Your task to perform on an android device: Open calendar and show me the third week of next month Image 0: 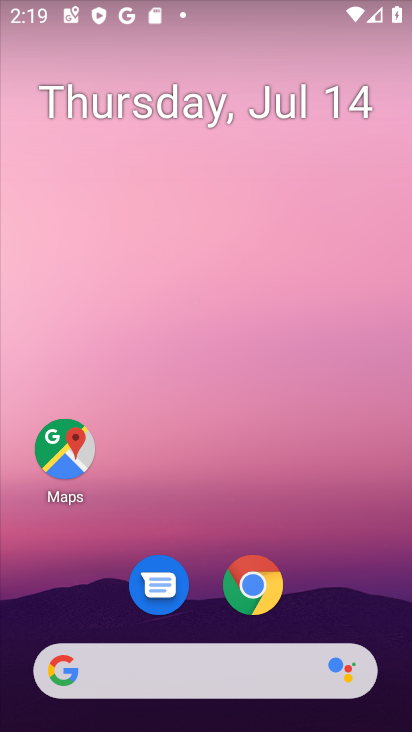
Step 0: drag from (340, 564) to (314, 84)
Your task to perform on an android device: Open calendar and show me the third week of next month Image 1: 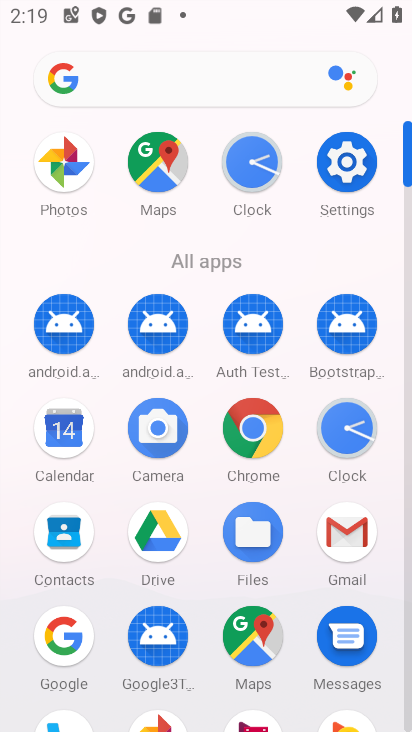
Step 1: click (78, 439)
Your task to perform on an android device: Open calendar and show me the third week of next month Image 2: 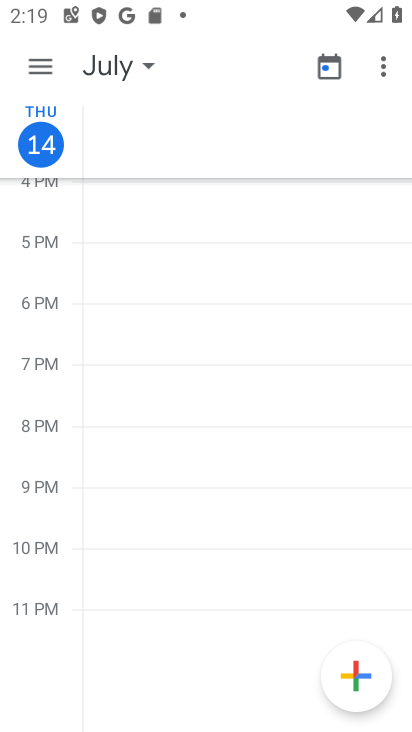
Step 2: click (40, 66)
Your task to perform on an android device: Open calendar and show me the third week of next month Image 3: 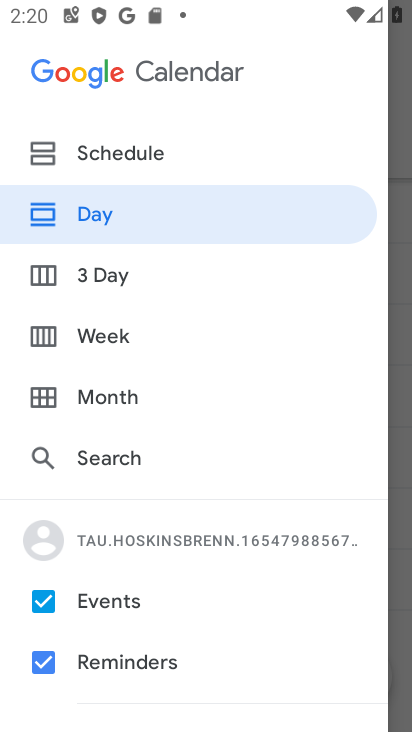
Step 3: click (43, 395)
Your task to perform on an android device: Open calendar and show me the third week of next month Image 4: 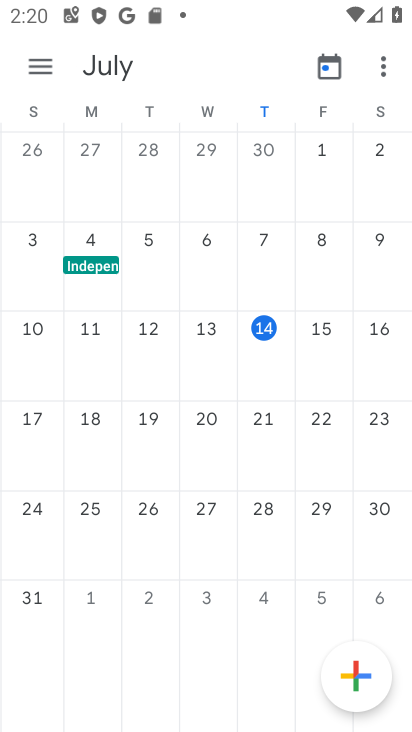
Step 4: drag from (380, 464) to (2, 417)
Your task to perform on an android device: Open calendar and show me the third week of next month Image 5: 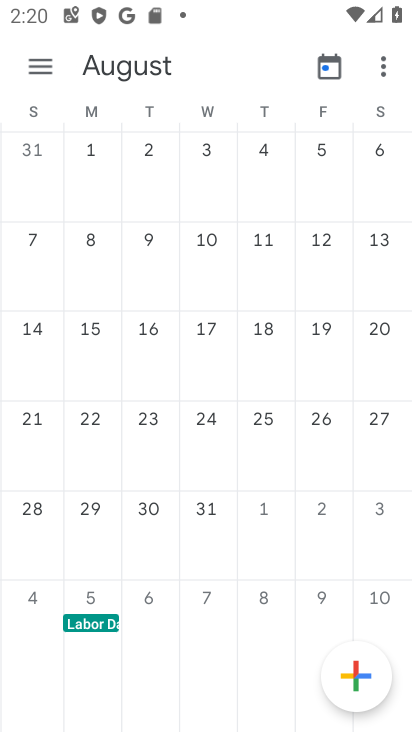
Step 5: drag from (376, 364) to (15, 403)
Your task to perform on an android device: Open calendar and show me the third week of next month Image 6: 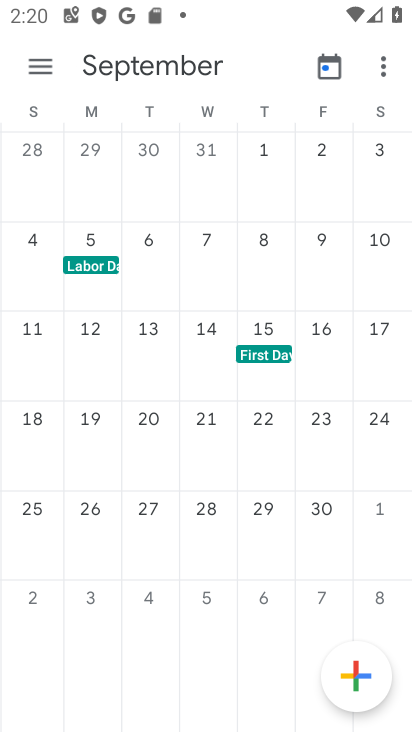
Step 6: drag from (55, 448) to (406, 472)
Your task to perform on an android device: Open calendar and show me the third week of next month Image 7: 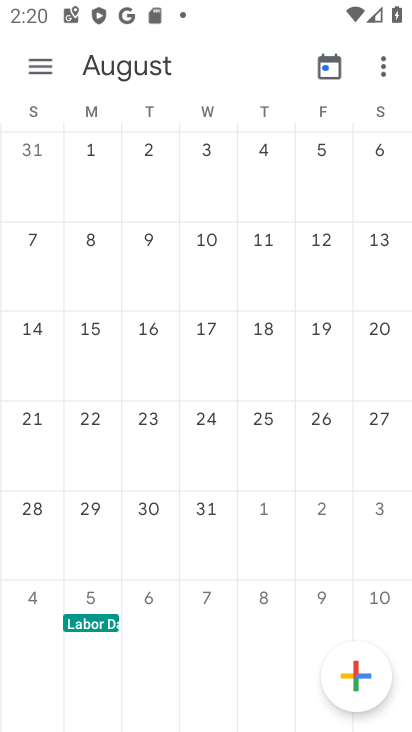
Step 7: click (33, 417)
Your task to perform on an android device: Open calendar and show me the third week of next month Image 8: 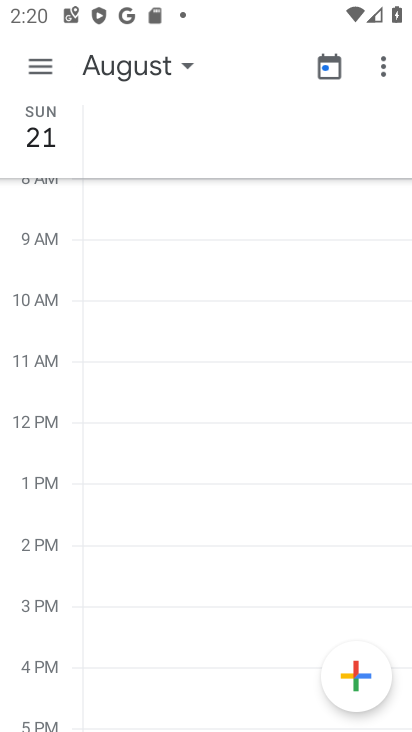
Step 8: click (48, 62)
Your task to perform on an android device: Open calendar and show me the third week of next month Image 9: 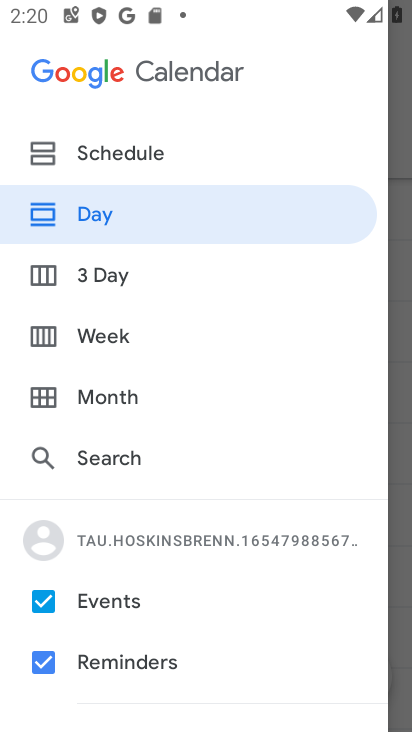
Step 9: click (51, 341)
Your task to perform on an android device: Open calendar and show me the third week of next month Image 10: 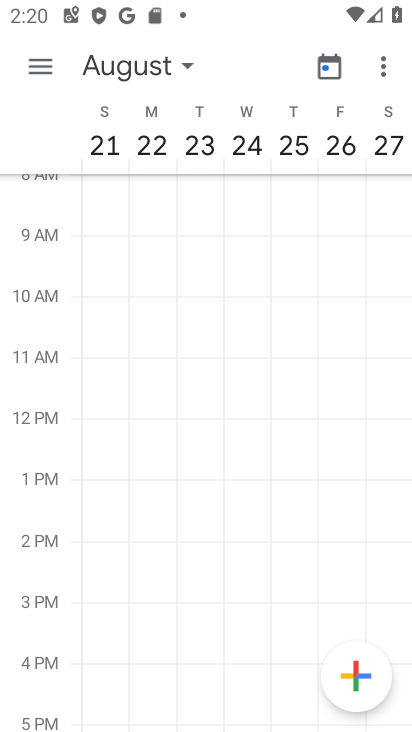
Step 10: task complete